Your task to perform on an android device: set the timer Image 0: 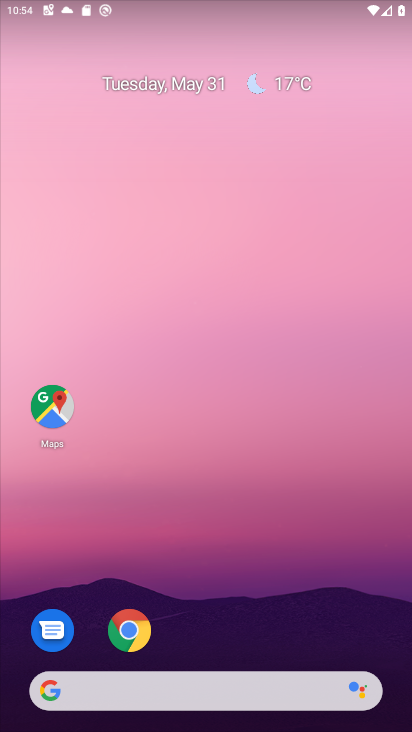
Step 0: drag from (288, 529) to (252, 47)
Your task to perform on an android device: set the timer Image 1: 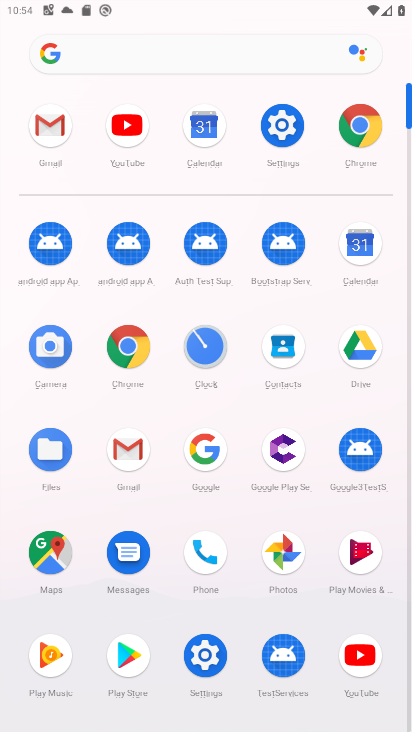
Step 1: click (214, 345)
Your task to perform on an android device: set the timer Image 2: 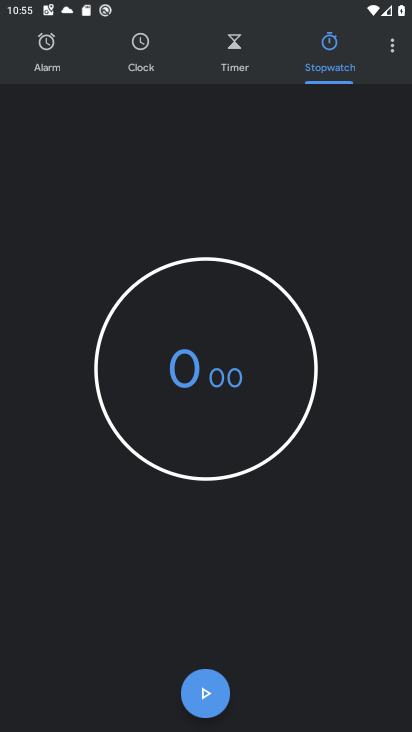
Step 2: click (252, 52)
Your task to perform on an android device: set the timer Image 3: 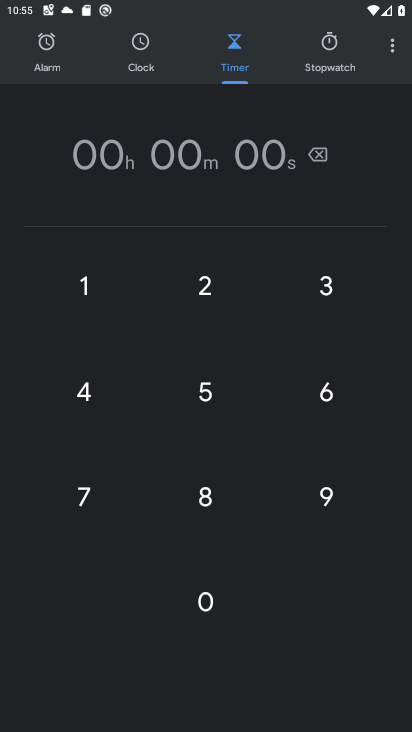
Step 3: click (200, 404)
Your task to perform on an android device: set the timer Image 4: 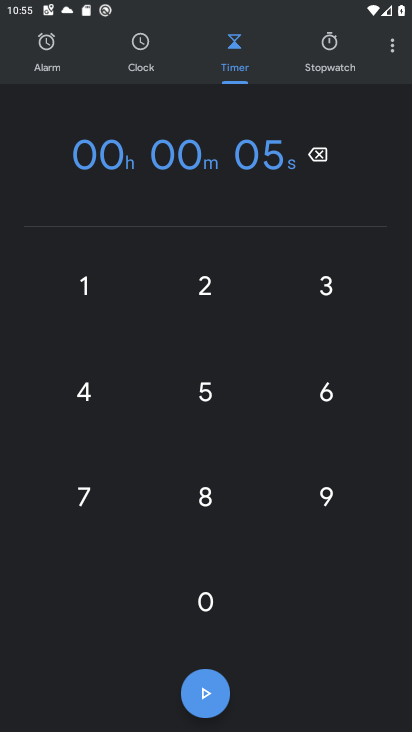
Step 4: task complete